Your task to perform on an android device: Open Google Chrome and open the bookmarks view Image 0: 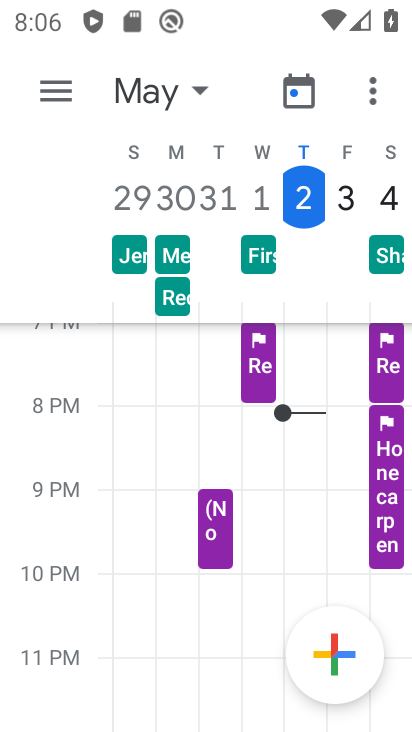
Step 0: press home button
Your task to perform on an android device: Open Google Chrome and open the bookmarks view Image 1: 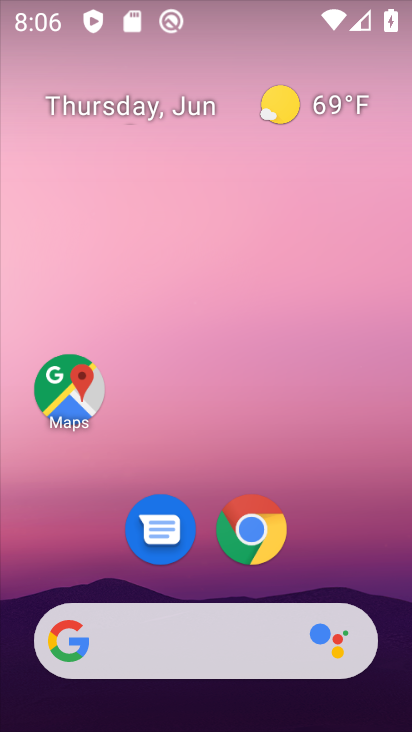
Step 1: click (245, 530)
Your task to perform on an android device: Open Google Chrome and open the bookmarks view Image 2: 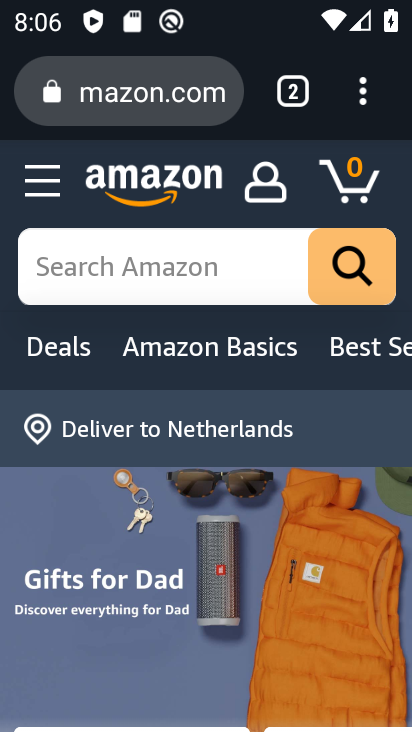
Step 2: task complete